Your task to perform on an android device: turn on data saver in the chrome app Image 0: 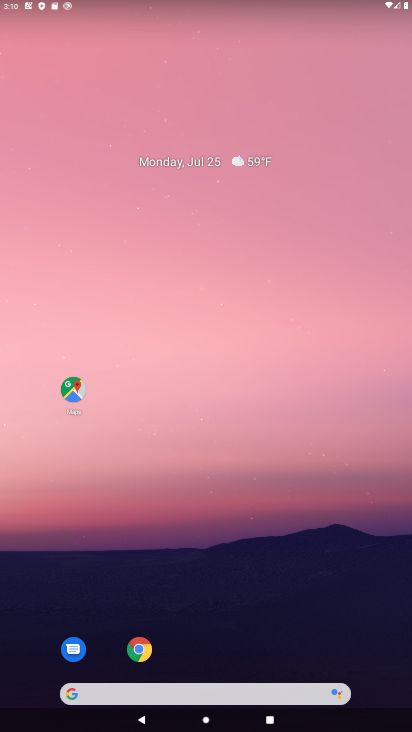
Step 0: click (145, 658)
Your task to perform on an android device: turn on data saver in the chrome app Image 1: 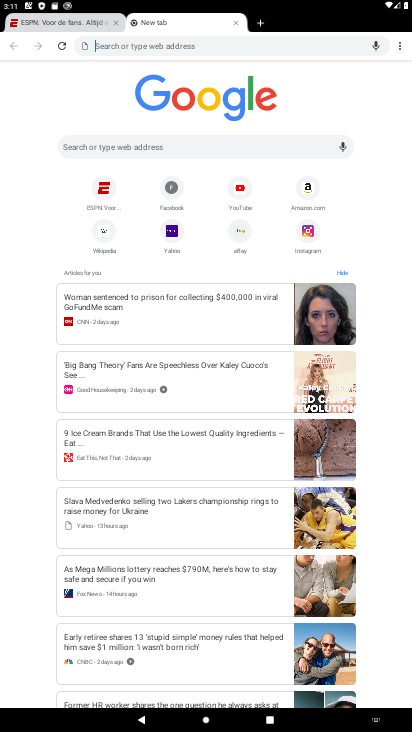
Step 1: click (396, 44)
Your task to perform on an android device: turn on data saver in the chrome app Image 2: 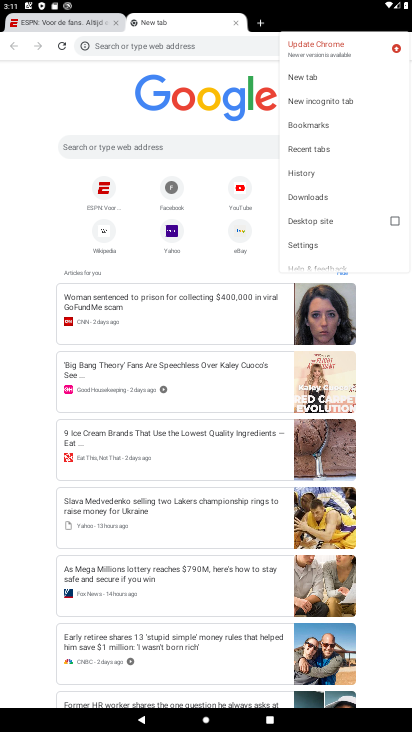
Step 2: click (307, 244)
Your task to perform on an android device: turn on data saver in the chrome app Image 3: 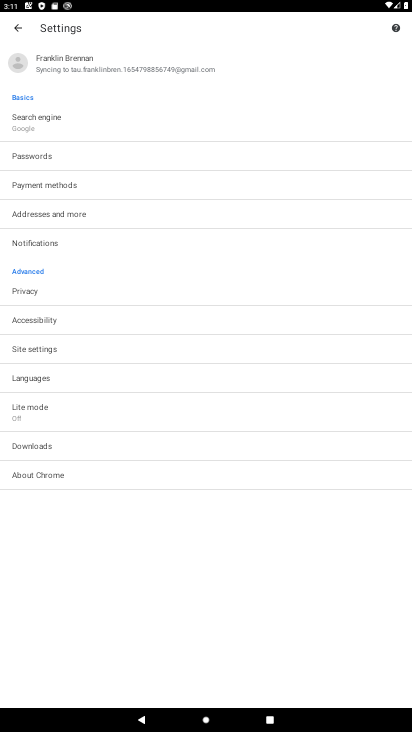
Step 3: click (28, 417)
Your task to perform on an android device: turn on data saver in the chrome app Image 4: 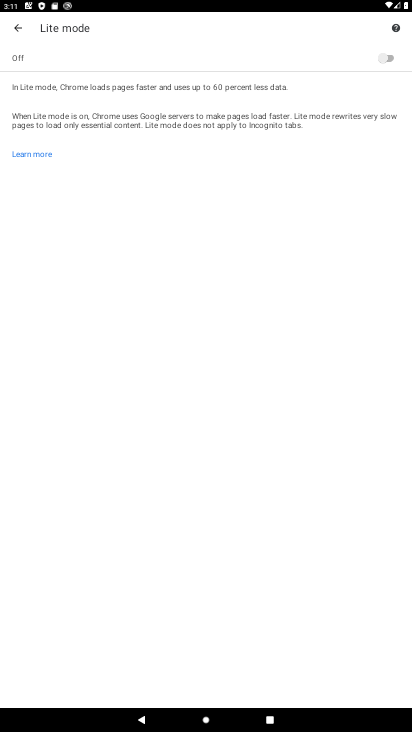
Step 4: click (390, 56)
Your task to perform on an android device: turn on data saver in the chrome app Image 5: 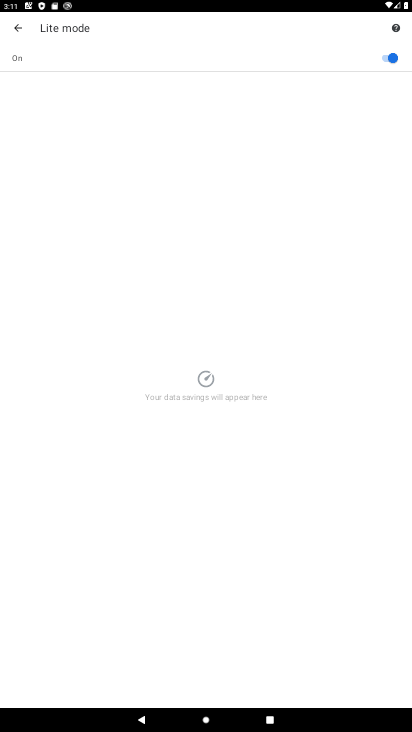
Step 5: task complete